Your task to perform on an android device: set the stopwatch Image 0: 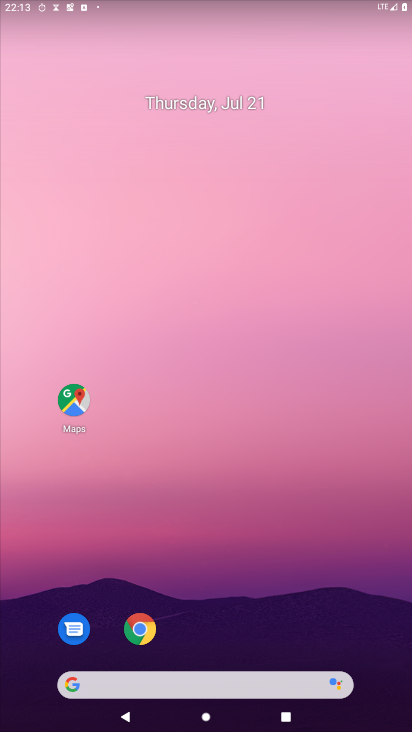
Step 0: drag from (260, 589) to (213, 100)
Your task to perform on an android device: set the stopwatch Image 1: 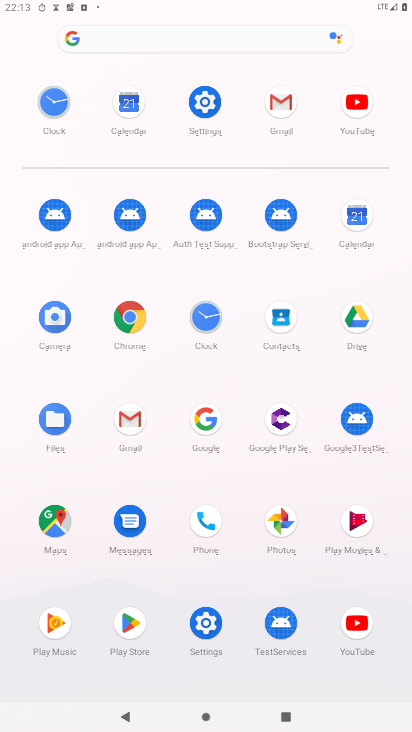
Step 1: click (194, 321)
Your task to perform on an android device: set the stopwatch Image 2: 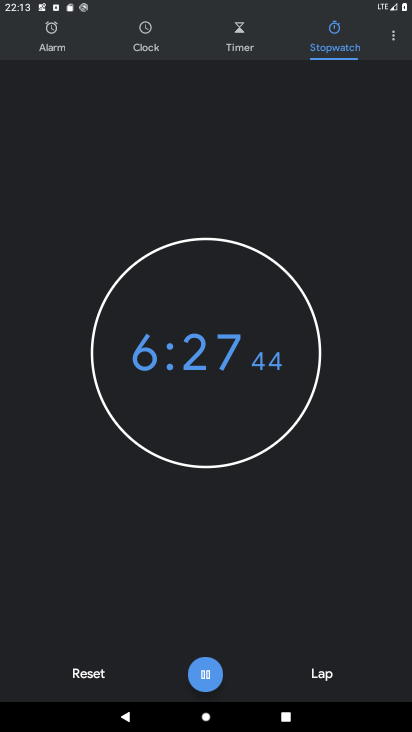
Step 2: click (203, 662)
Your task to perform on an android device: set the stopwatch Image 3: 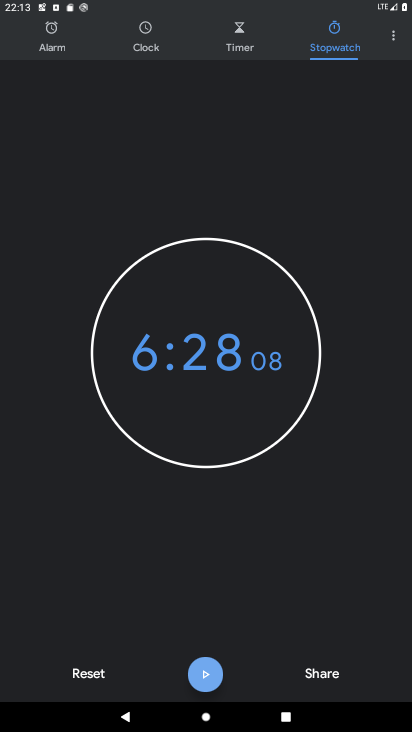
Step 3: click (107, 674)
Your task to perform on an android device: set the stopwatch Image 4: 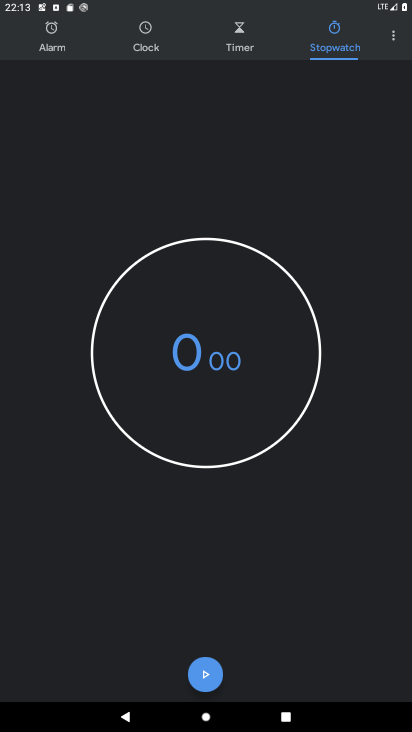
Step 4: task complete